Your task to perform on an android device: Open Google Maps Image 0: 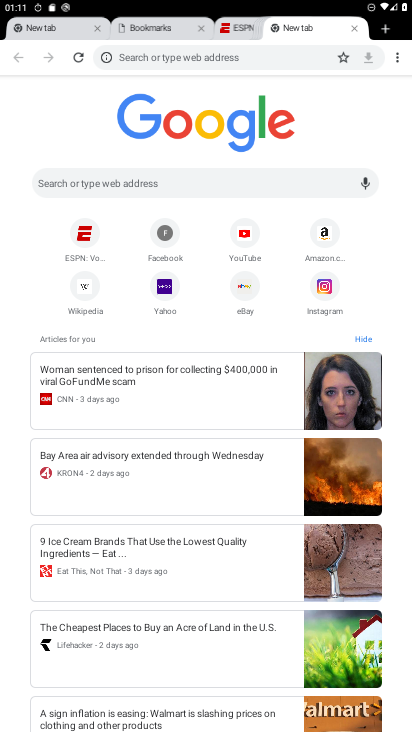
Step 0: click (25, 664)
Your task to perform on an android device: Open Google Maps Image 1: 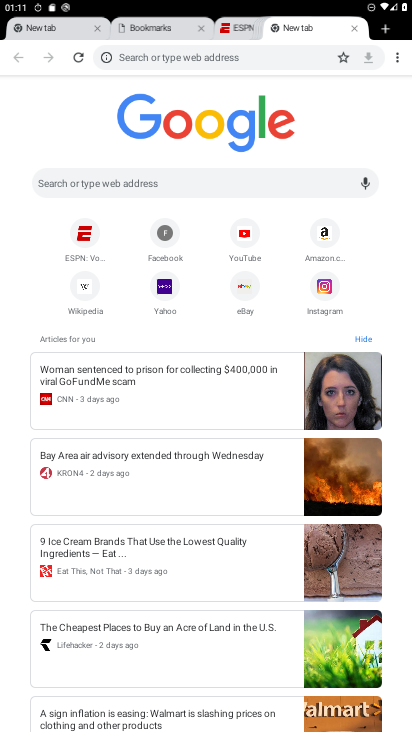
Step 1: press home button
Your task to perform on an android device: Open Google Maps Image 2: 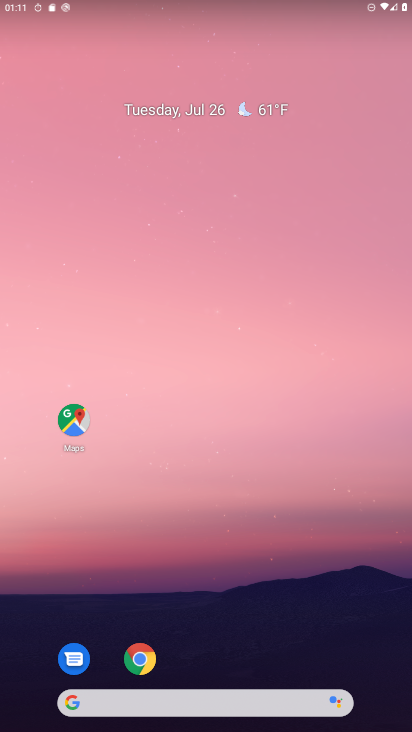
Step 2: click (69, 409)
Your task to perform on an android device: Open Google Maps Image 3: 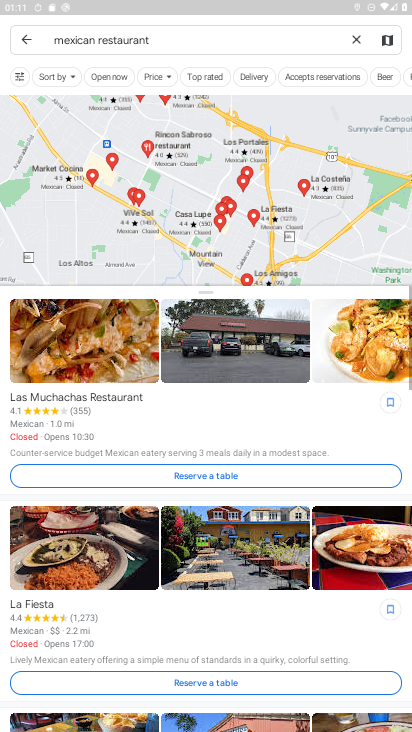
Step 3: click (25, 40)
Your task to perform on an android device: Open Google Maps Image 4: 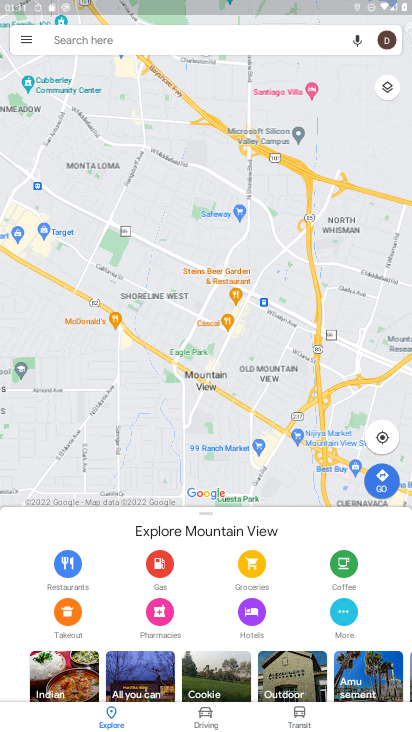
Step 4: task complete